Your task to perform on an android device: Open accessibility settings Image 0: 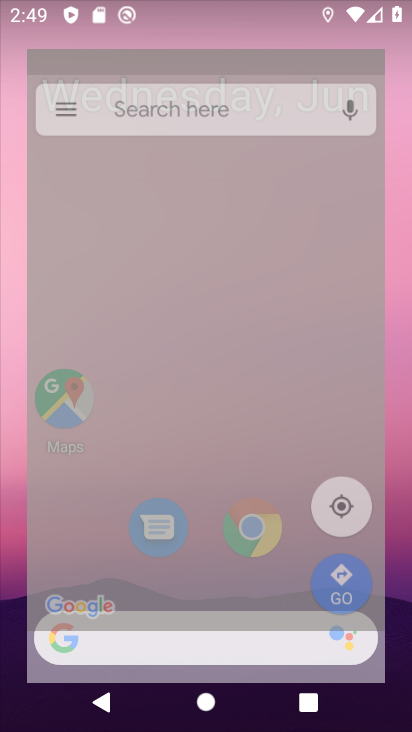
Step 0: drag from (337, 552) to (308, 0)
Your task to perform on an android device: Open accessibility settings Image 1: 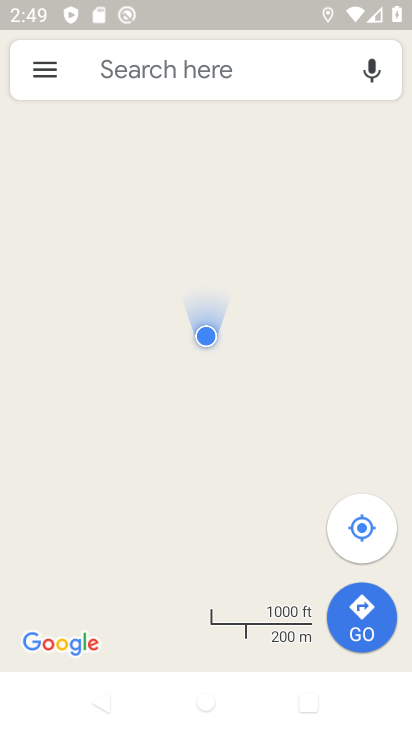
Step 1: press home button
Your task to perform on an android device: Open accessibility settings Image 2: 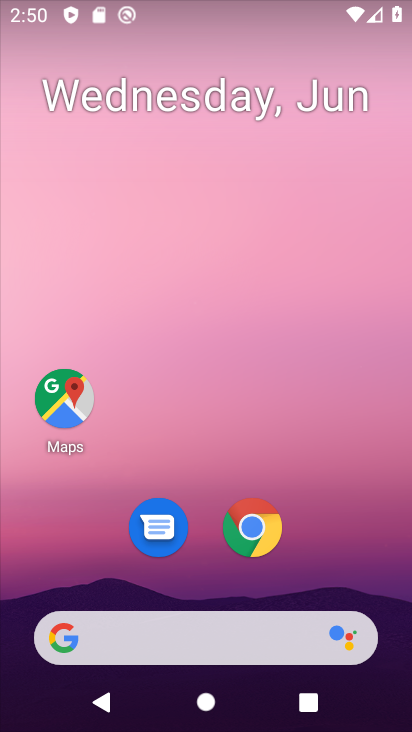
Step 2: drag from (398, 614) to (288, 52)
Your task to perform on an android device: Open accessibility settings Image 3: 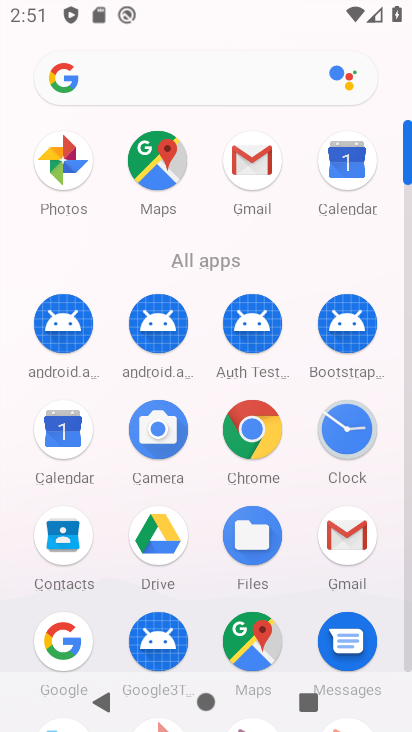
Step 3: click (410, 645)
Your task to perform on an android device: Open accessibility settings Image 4: 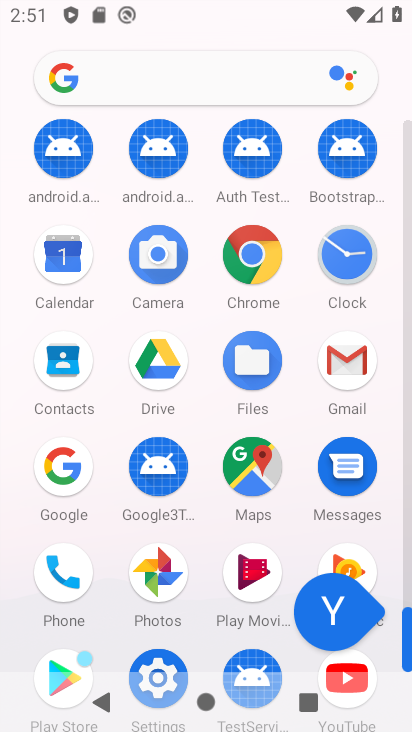
Step 4: click (410, 645)
Your task to perform on an android device: Open accessibility settings Image 5: 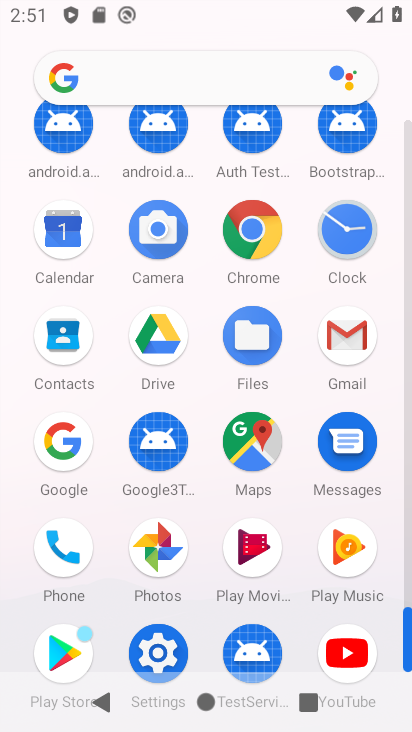
Step 5: click (173, 644)
Your task to perform on an android device: Open accessibility settings Image 6: 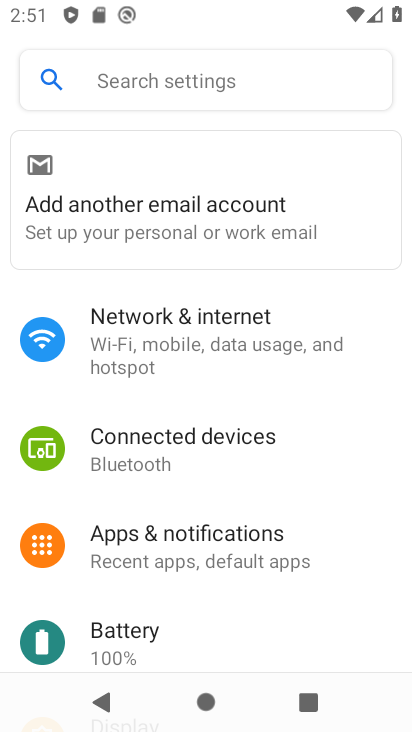
Step 6: drag from (389, 608) to (351, 313)
Your task to perform on an android device: Open accessibility settings Image 7: 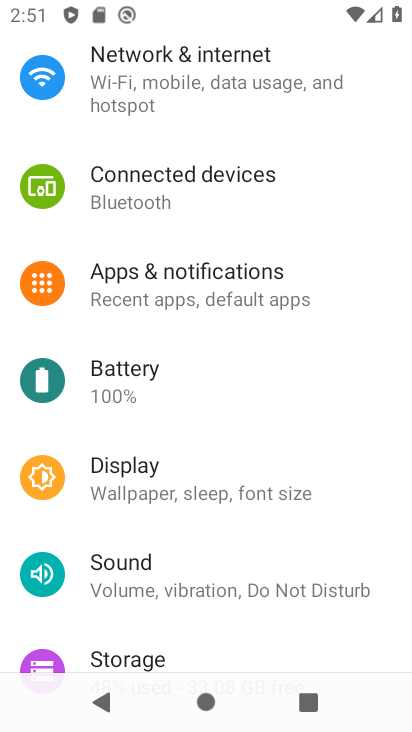
Step 7: drag from (149, 537) to (164, 184)
Your task to perform on an android device: Open accessibility settings Image 8: 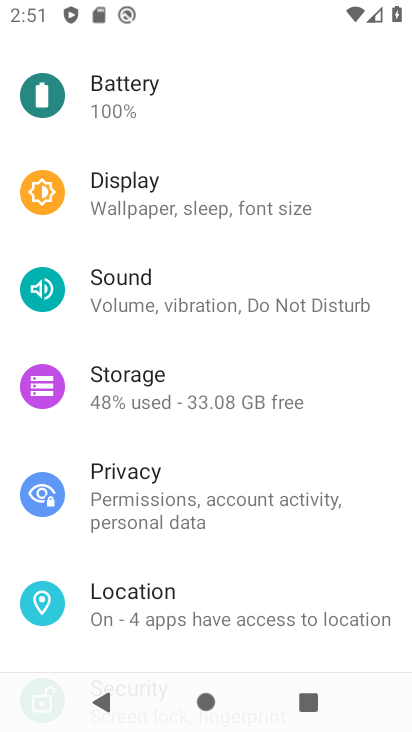
Step 8: drag from (187, 515) to (186, 164)
Your task to perform on an android device: Open accessibility settings Image 9: 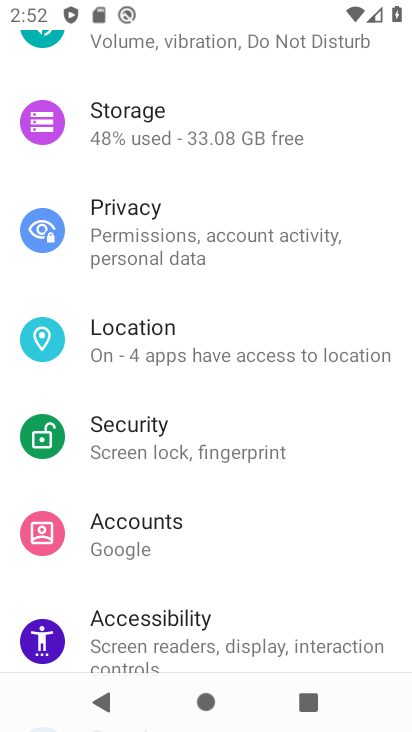
Step 9: drag from (220, 474) to (230, 67)
Your task to perform on an android device: Open accessibility settings Image 10: 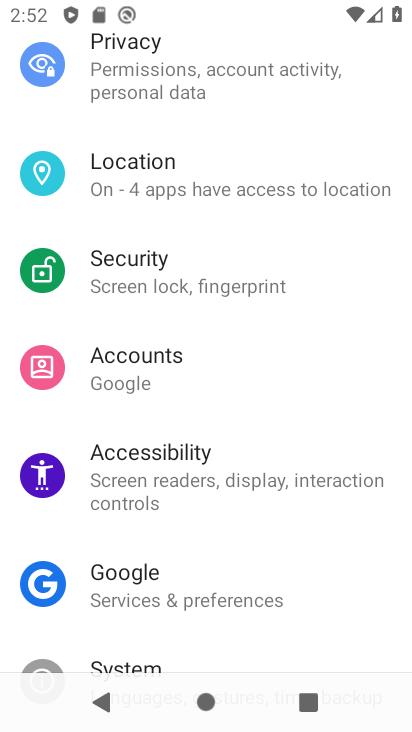
Step 10: click (144, 471)
Your task to perform on an android device: Open accessibility settings Image 11: 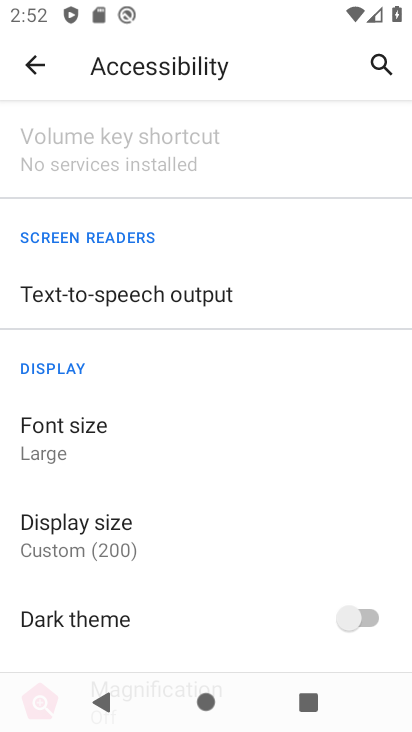
Step 11: task complete